Your task to perform on an android device: Search for Italian restaurants on Maps Image 0: 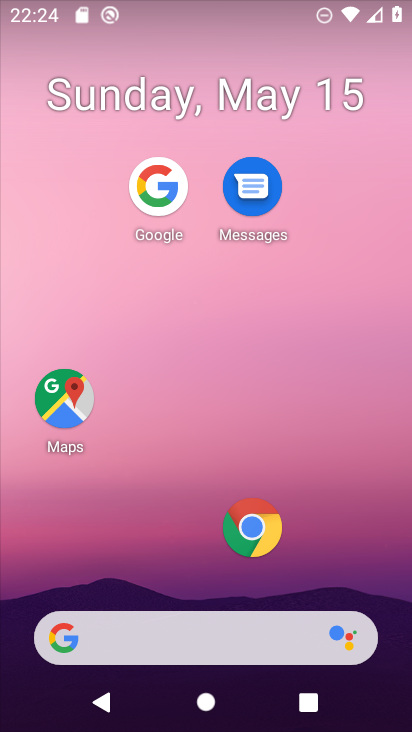
Step 0: press home button
Your task to perform on an android device: Search for Italian restaurants on Maps Image 1: 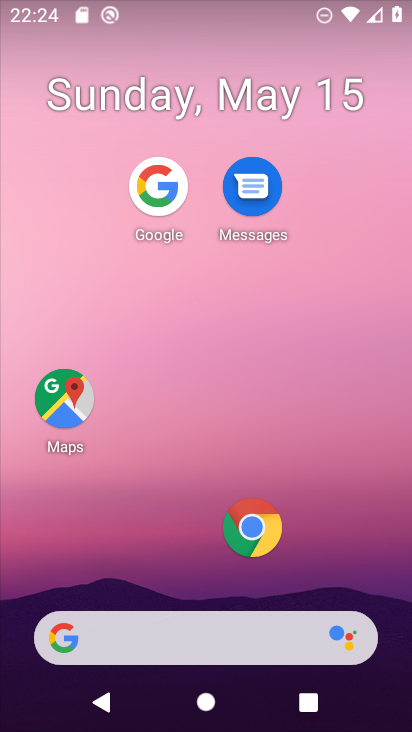
Step 1: drag from (166, 631) to (278, 189)
Your task to perform on an android device: Search for Italian restaurants on Maps Image 2: 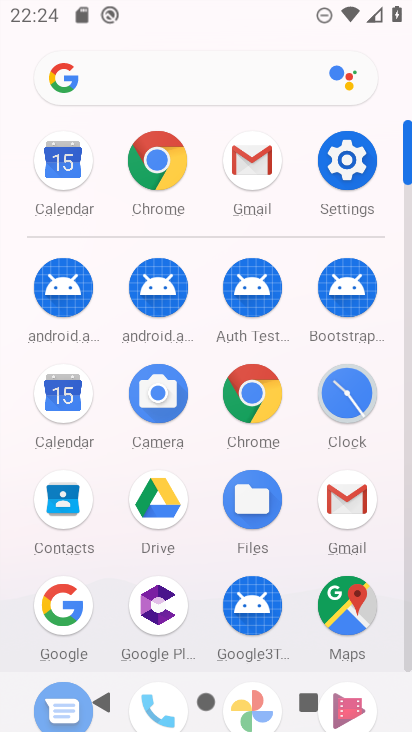
Step 2: click (351, 601)
Your task to perform on an android device: Search for Italian restaurants on Maps Image 3: 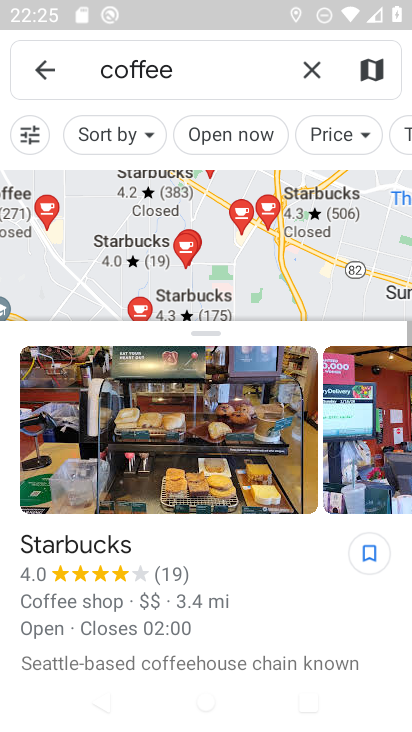
Step 3: click (306, 72)
Your task to perform on an android device: Search for Italian restaurants on Maps Image 4: 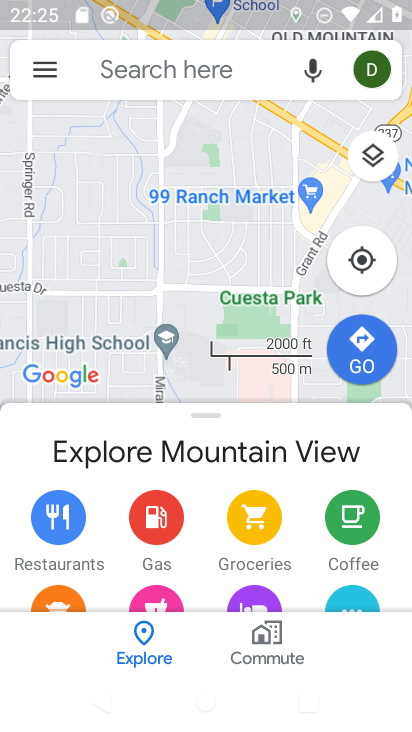
Step 4: click (163, 68)
Your task to perform on an android device: Search for Italian restaurants on Maps Image 5: 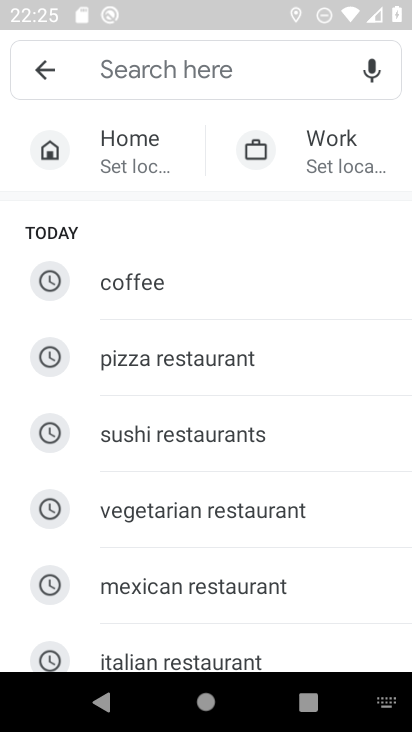
Step 5: drag from (175, 604) to (352, 176)
Your task to perform on an android device: Search for Italian restaurants on Maps Image 6: 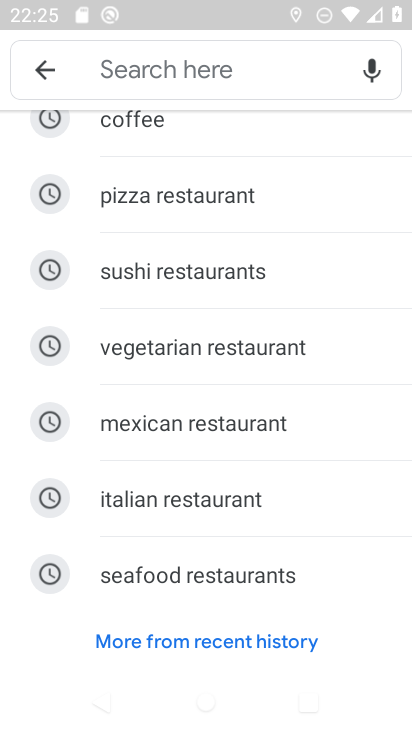
Step 6: click (183, 499)
Your task to perform on an android device: Search for Italian restaurants on Maps Image 7: 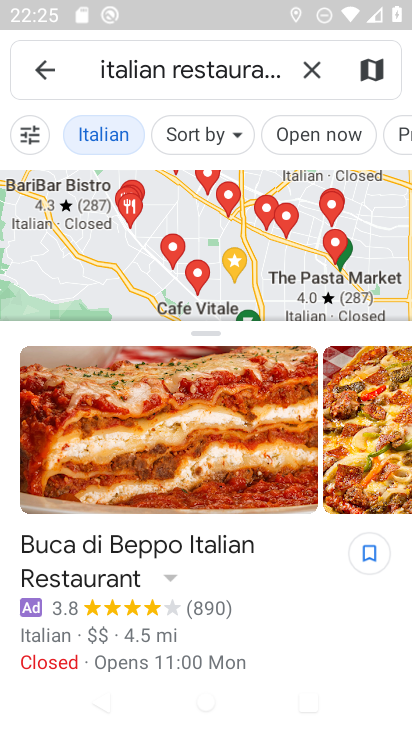
Step 7: task complete